Your task to perform on an android device: open sync settings in chrome Image 0: 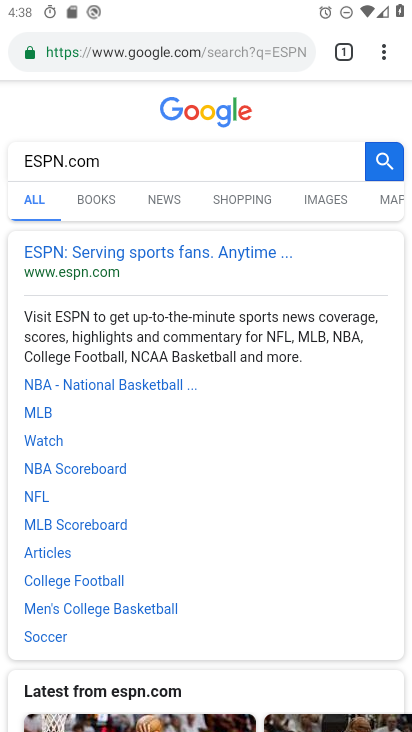
Step 0: press back button
Your task to perform on an android device: open sync settings in chrome Image 1: 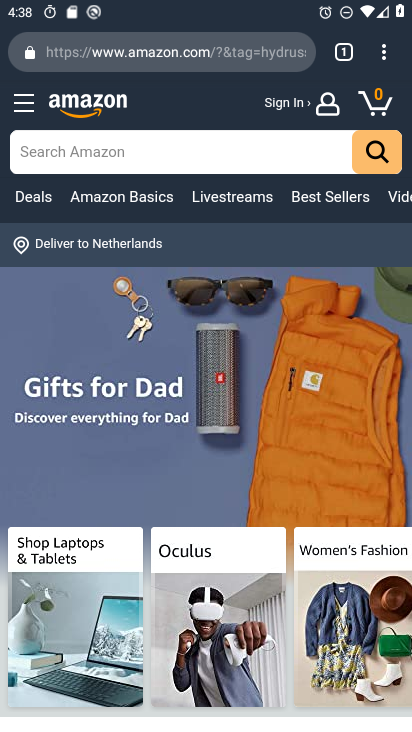
Step 1: press back button
Your task to perform on an android device: open sync settings in chrome Image 2: 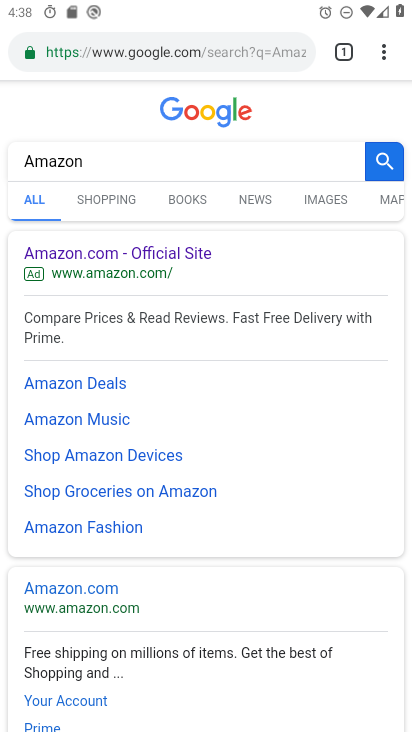
Step 2: press back button
Your task to perform on an android device: open sync settings in chrome Image 3: 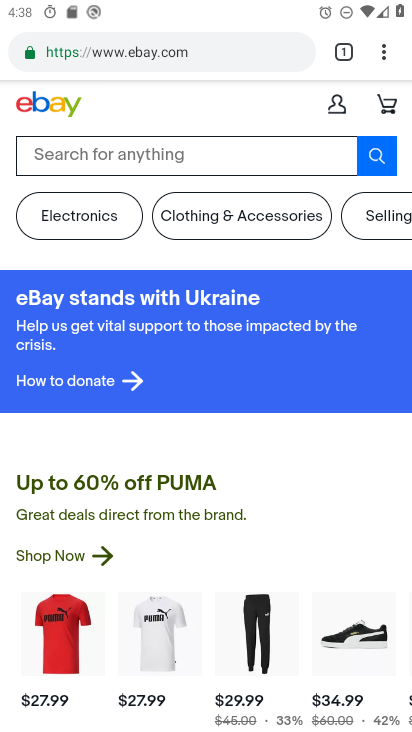
Step 3: press back button
Your task to perform on an android device: open sync settings in chrome Image 4: 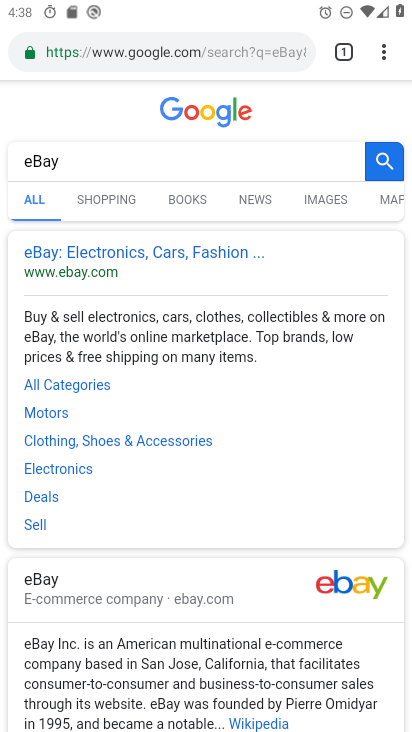
Step 4: press back button
Your task to perform on an android device: open sync settings in chrome Image 5: 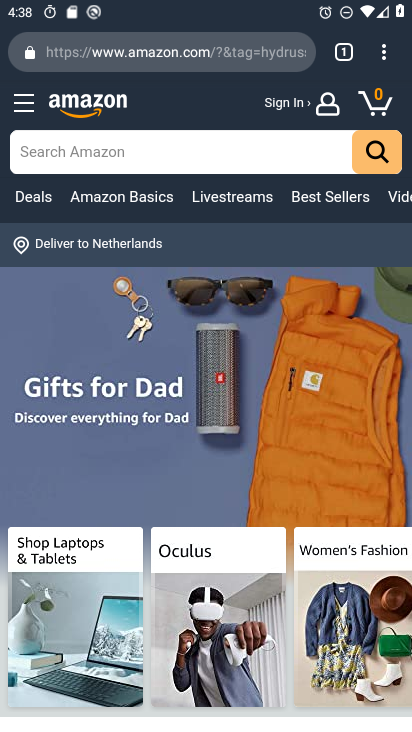
Step 5: press back button
Your task to perform on an android device: open sync settings in chrome Image 6: 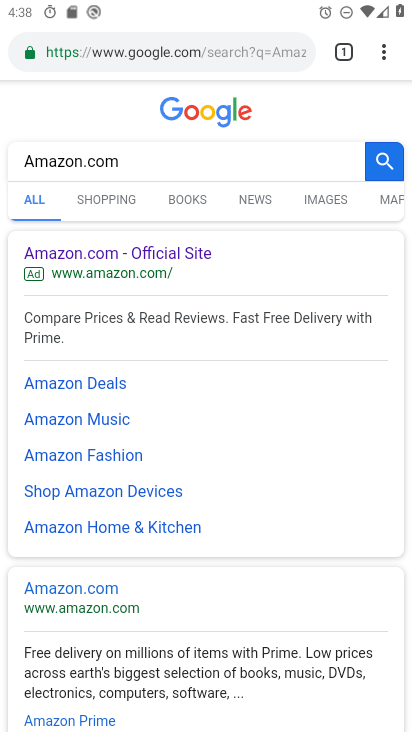
Step 6: press back button
Your task to perform on an android device: open sync settings in chrome Image 7: 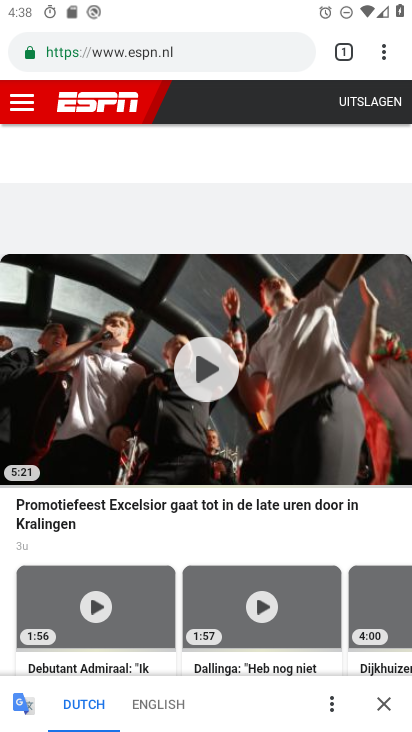
Step 7: press back button
Your task to perform on an android device: open sync settings in chrome Image 8: 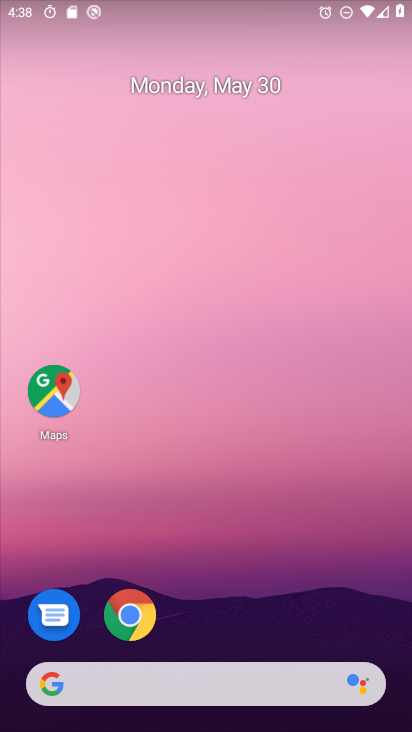
Step 8: click (129, 613)
Your task to perform on an android device: open sync settings in chrome Image 9: 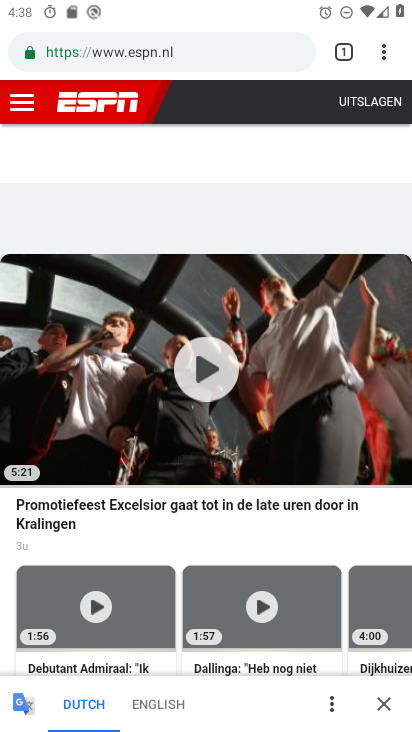
Step 9: click (385, 46)
Your task to perform on an android device: open sync settings in chrome Image 10: 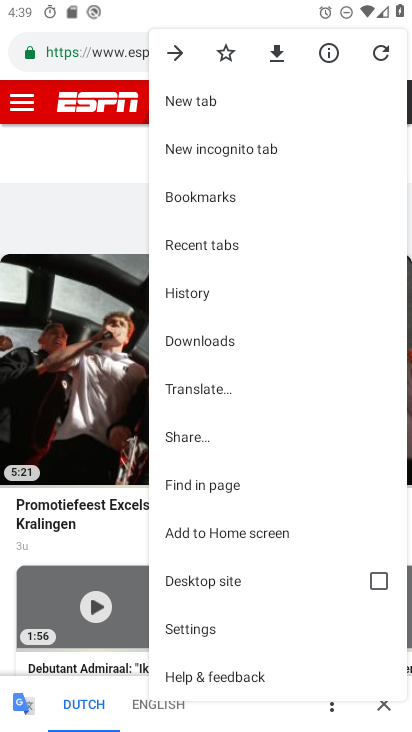
Step 10: click (196, 626)
Your task to perform on an android device: open sync settings in chrome Image 11: 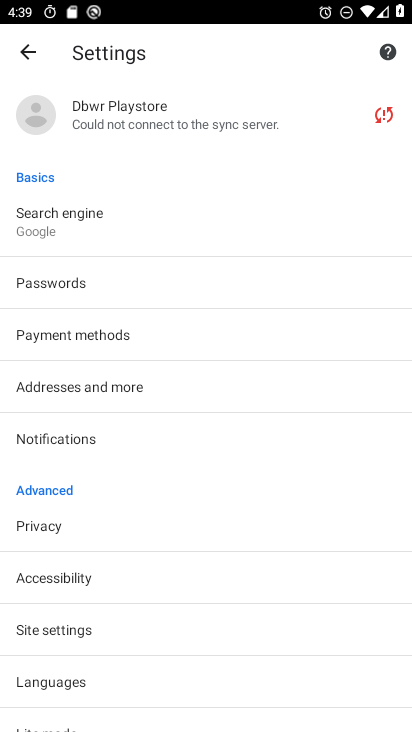
Step 11: click (57, 628)
Your task to perform on an android device: open sync settings in chrome Image 12: 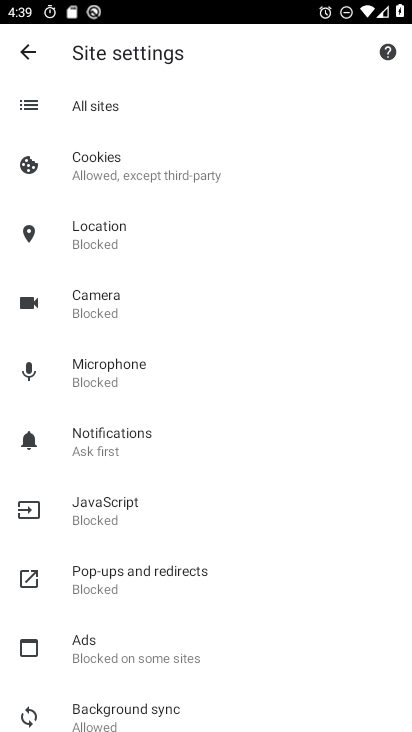
Step 12: drag from (120, 625) to (179, 512)
Your task to perform on an android device: open sync settings in chrome Image 13: 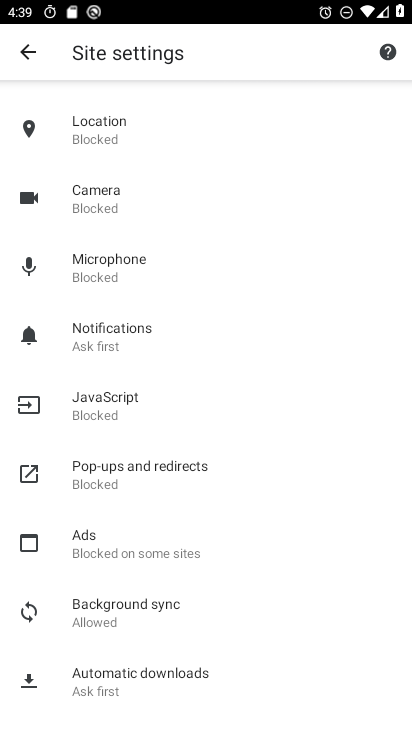
Step 13: click (133, 599)
Your task to perform on an android device: open sync settings in chrome Image 14: 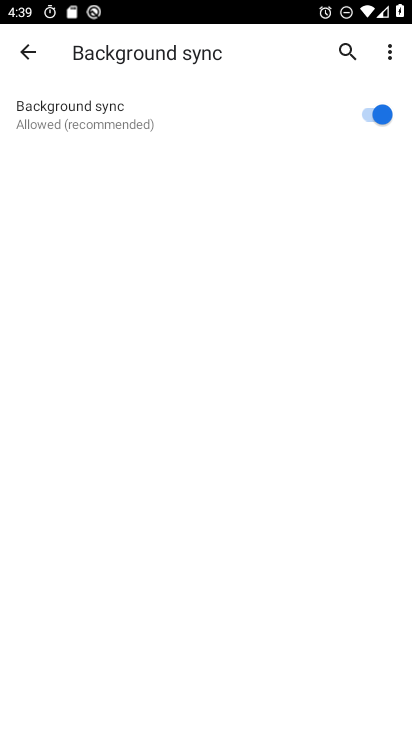
Step 14: task complete